Your task to perform on an android device: Go to Amazon Image 0: 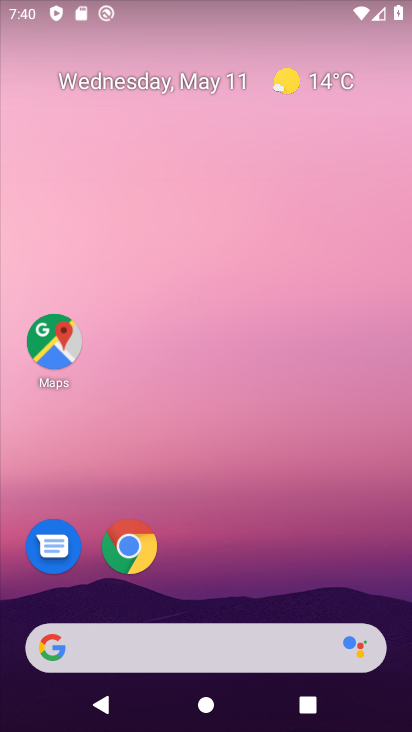
Step 0: click (129, 551)
Your task to perform on an android device: Go to Amazon Image 1: 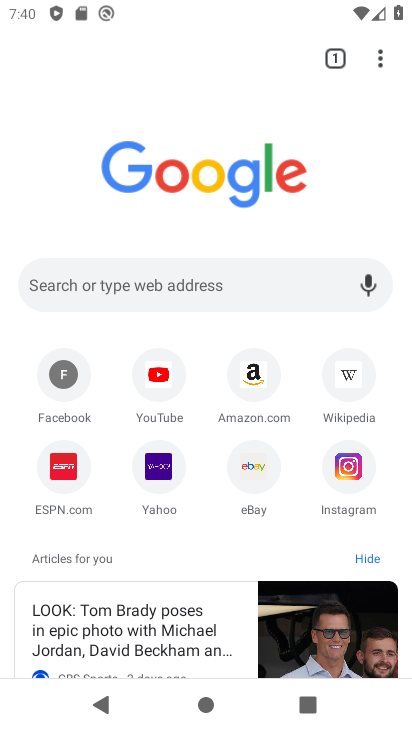
Step 1: drag from (85, 345) to (244, 367)
Your task to perform on an android device: Go to Amazon Image 2: 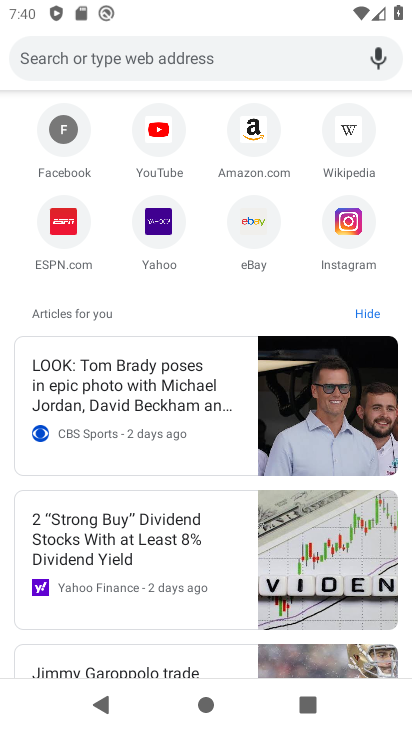
Step 2: click (269, 121)
Your task to perform on an android device: Go to Amazon Image 3: 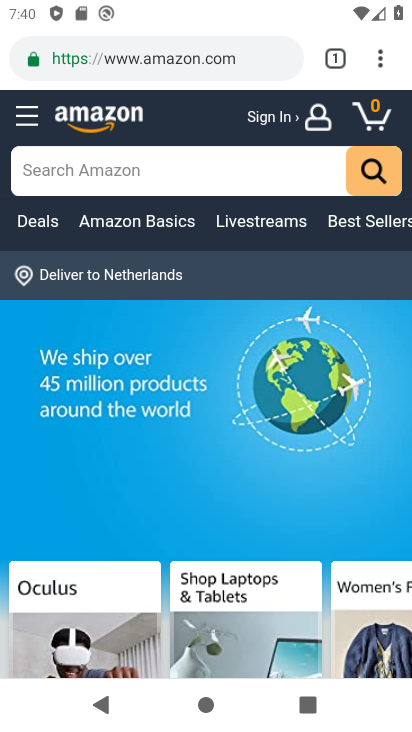
Step 3: task complete